Your task to perform on an android device: What is the news today? Image 0: 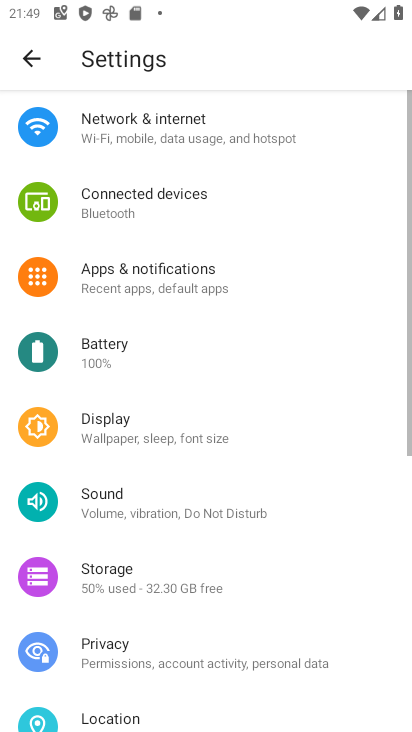
Step 0: press home button
Your task to perform on an android device: What is the news today? Image 1: 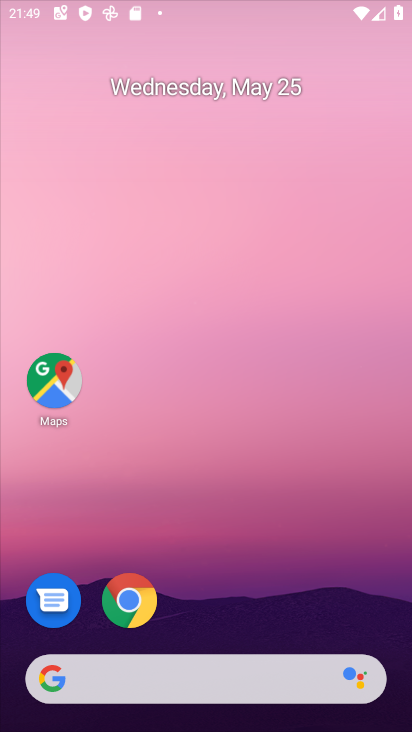
Step 1: drag from (372, 606) to (296, 165)
Your task to perform on an android device: What is the news today? Image 2: 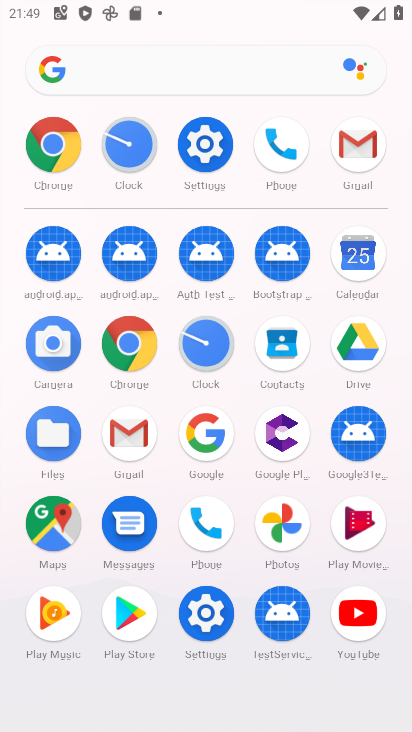
Step 2: click (121, 351)
Your task to perform on an android device: What is the news today? Image 3: 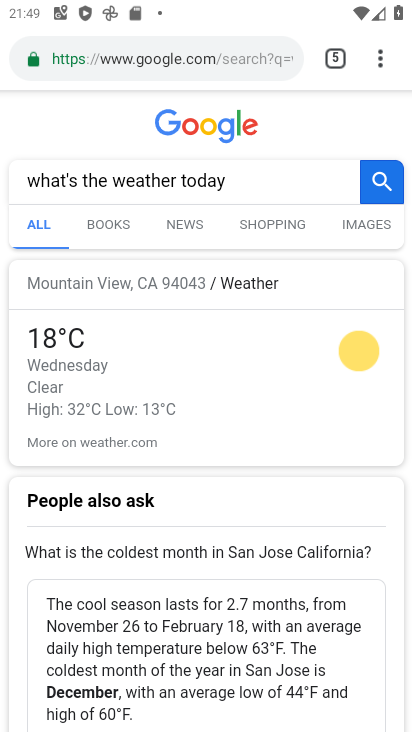
Step 3: click (183, 65)
Your task to perform on an android device: What is the news today? Image 4: 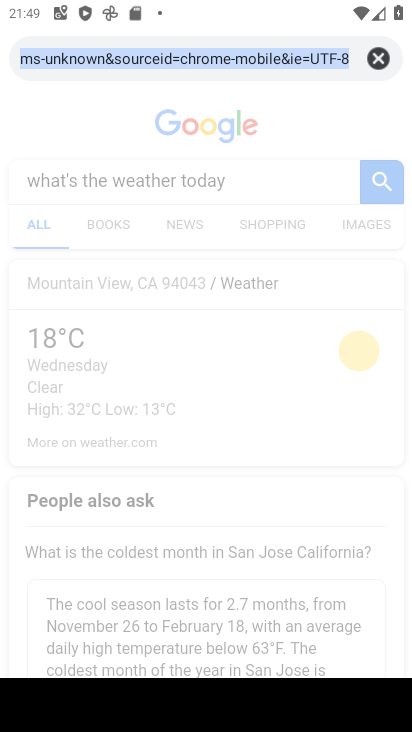
Step 4: click (379, 57)
Your task to perform on an android device: What is the news today? Image 5: 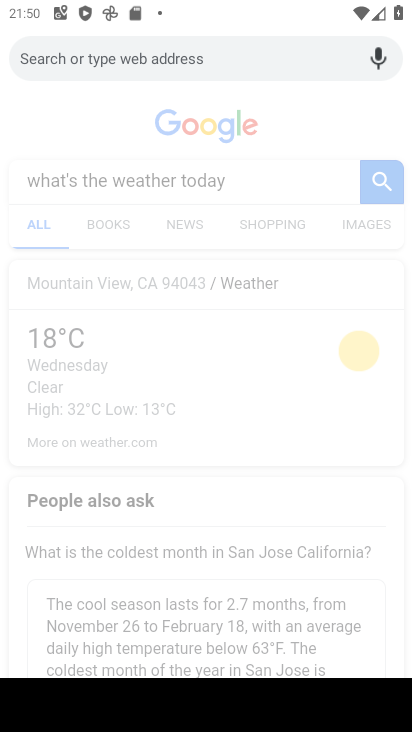
Step 5: type "what is the news today"
Your task to perform on an android device: What is the news today? Image 6: 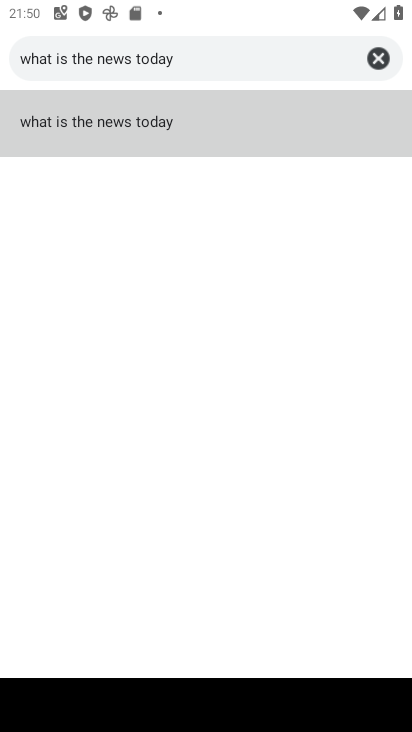
Step 6: click (173, 122)
Your task to perform on an android device: What is the news today? Image 7: 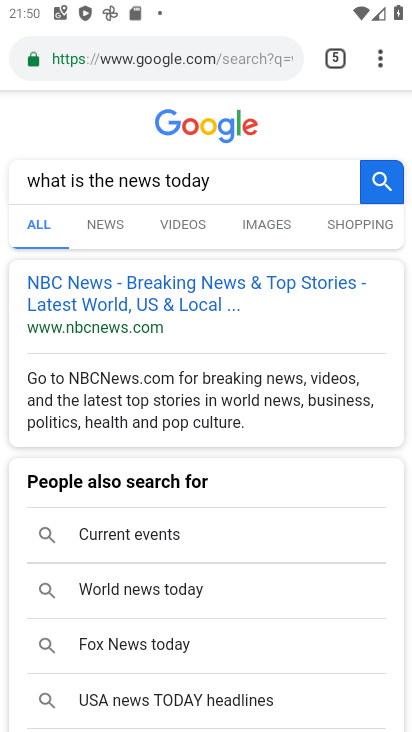
Step 7: task complete